Your task to perform on an android device: read, delete, or share a saved page in the chrome app Image 0: 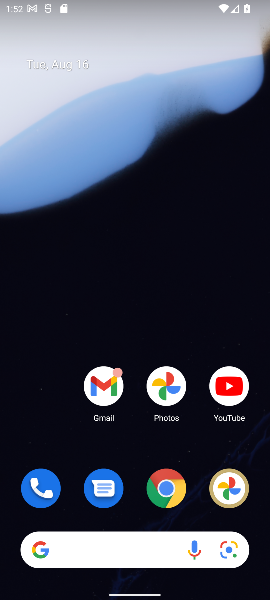
Step 0: drag from (60, 402) to (99, 94)
Your task to perform on an android device: read, delete, or share a saved page in the chrome app Image 1: 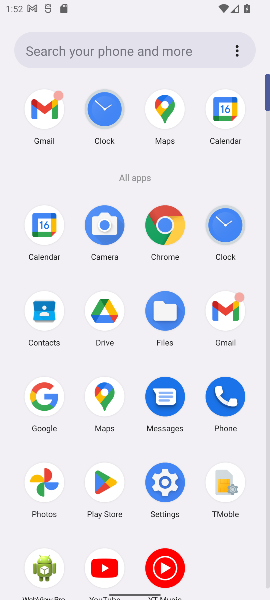
Step 1: click (160, 234)
Your task to perform on an android device: read, delete, or share a saved page in the chrome app Image 2: 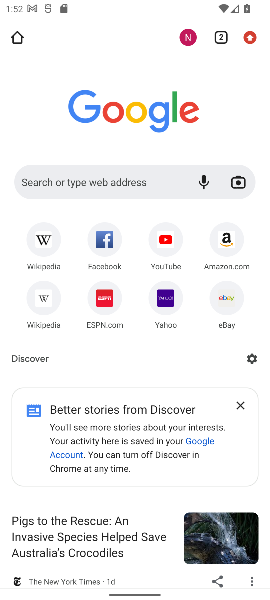
Step 2: task complete